Your task to perform on an android device: Open eBay Image 0: 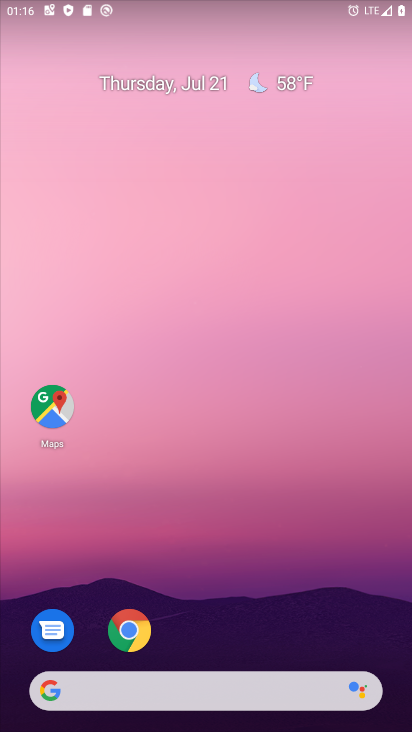
Step 0: click (130, 635)
Your task to perform on an android device: Open eBay Image 1: 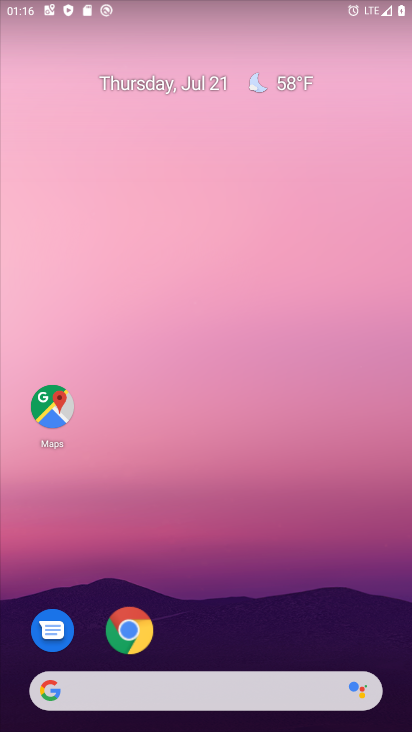
Step 1: click (130, 635)
Your task to perform on an android device: Open eBay Image 2: 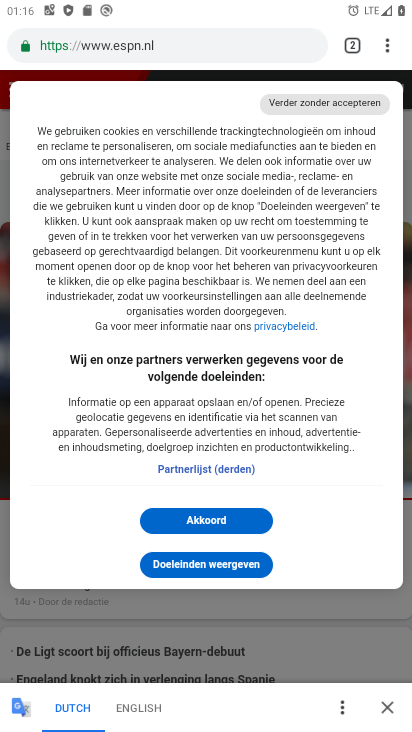
Step 2: click (356, 51)
Your task to perform on an android device: Open eBay Image 3: 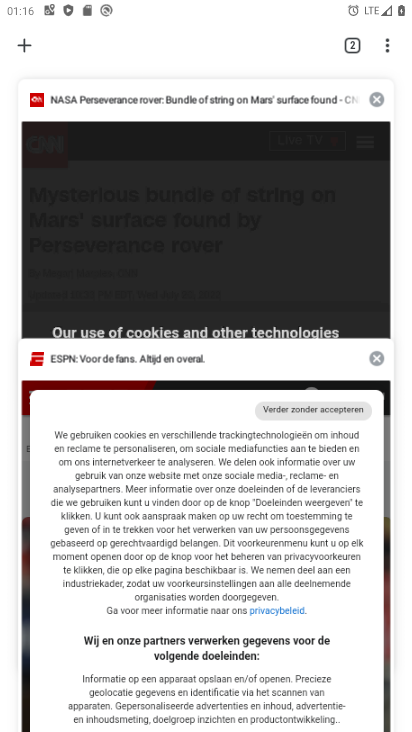
Step 3: click (25, 44)
Your task to perform on an android device: Open eBay Image 4: 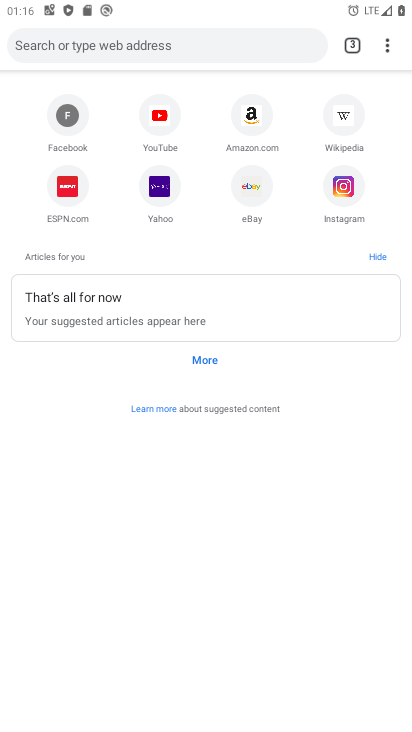
Step 4: click (260, 194)
Your task to perform on an android device: Open eBay Image 5: 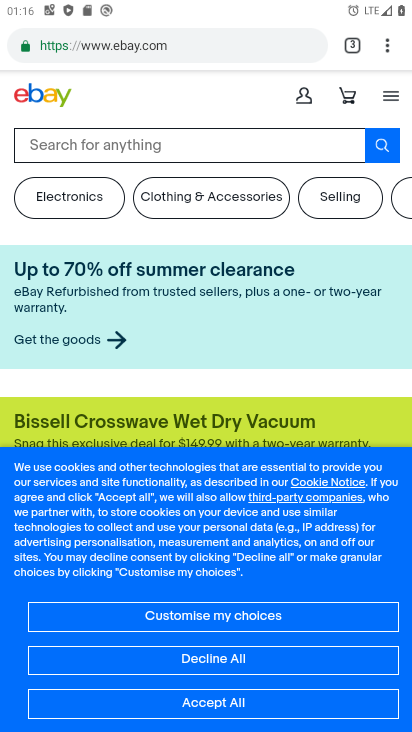
Step 5: task complete